Your task to perform on an android device: Go to Google Image 0: 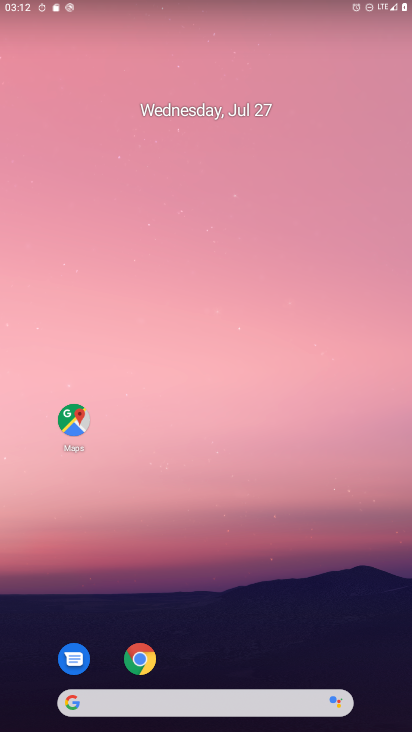
Step 0: drag from (192, 565) to (222, 112)
Your task to perform on an android device: Go to Google Image 1: 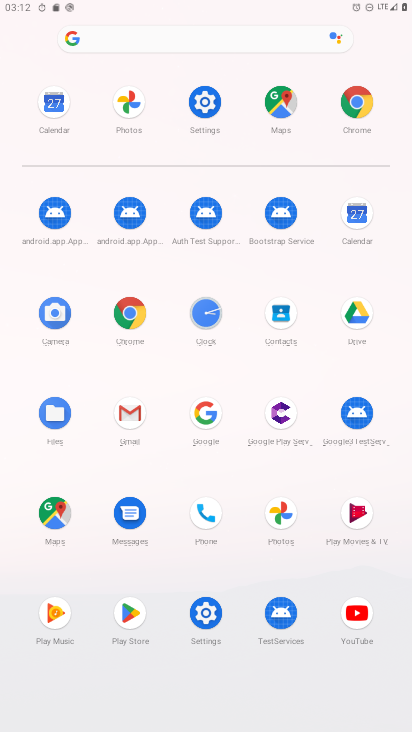
Step 1: click (209, 410)
Your task to perform on an android device: Go to Google Image 2: 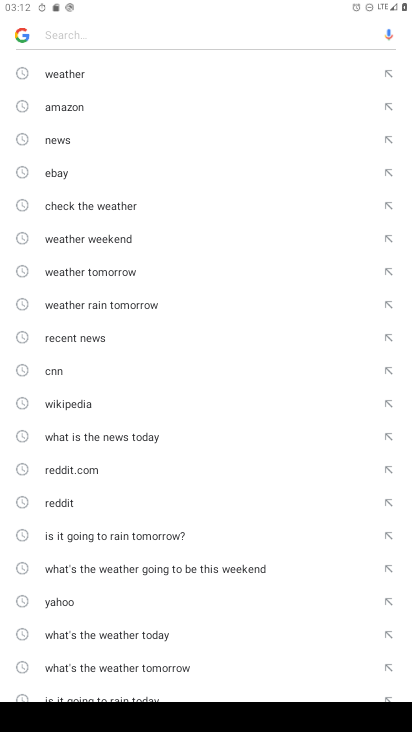
Step 2: task complete